Your task to perform on an android device: Set the phone to "Do not disturb". Image 0: 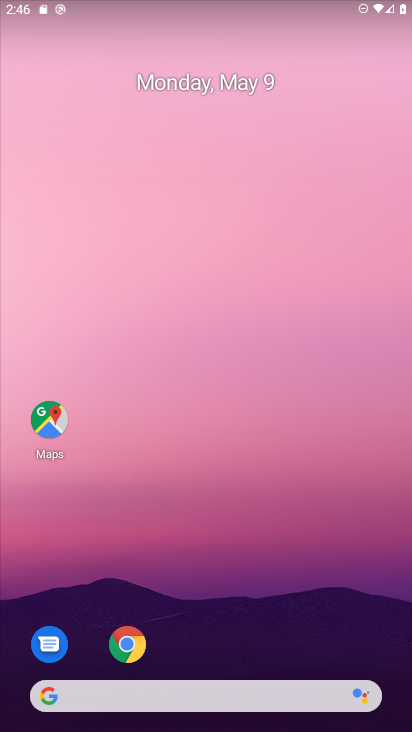
Step 0: drag from (196, 465) to (196, 154)
Your task to perform on an android device: Set the phone to "Do not disturb". Image 1: 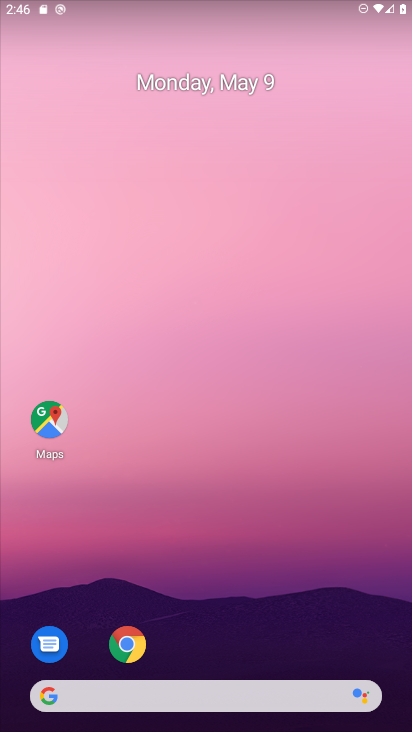
Step 1: drag from (257, 607) to (270, 271)
Your task to perform on an android device: Set the phone to "Do not disturb". Image 2: 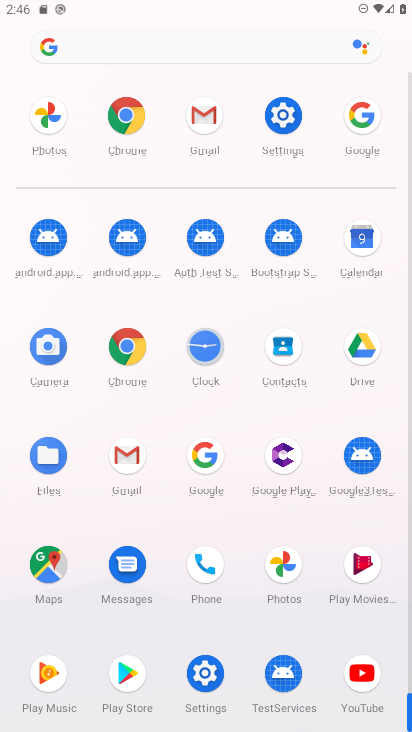
Step 2: click (281, 132)
Your task to perform on an android device: Set the phone to "Do not disturb". Image 3: 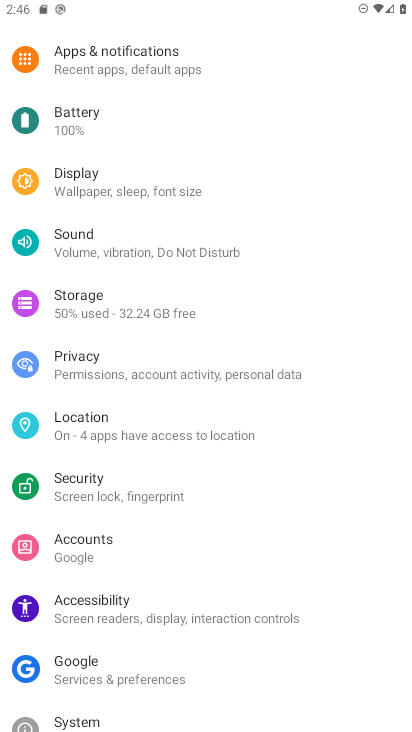
Step 3: drag from (215, 234) to (195, 390)
Your task to perform on an android device: Set the phone to "Do not disturb". Image 4: 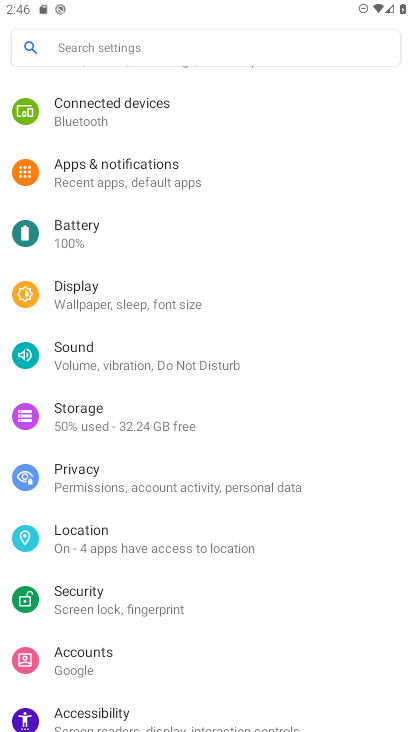
Step 4: click (134, 369)
Your task to perform on an android device: Set the phone to "Do not disturb". Image 5: 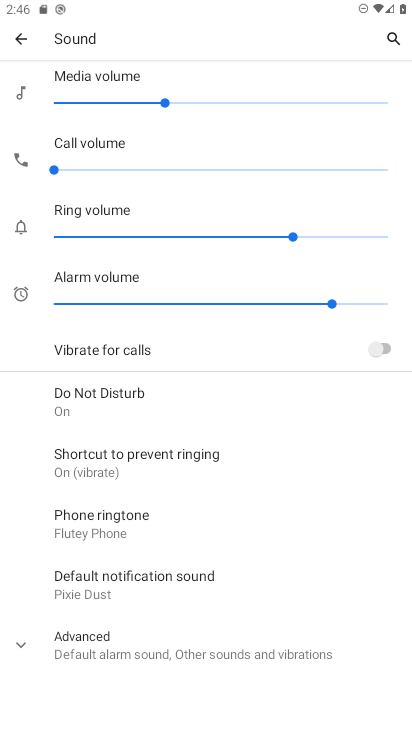
Step 5: drag from (174, 517) to (235, 348)
Your task to perform on an android device: Set the phone to "Do not disturb". Image 6: 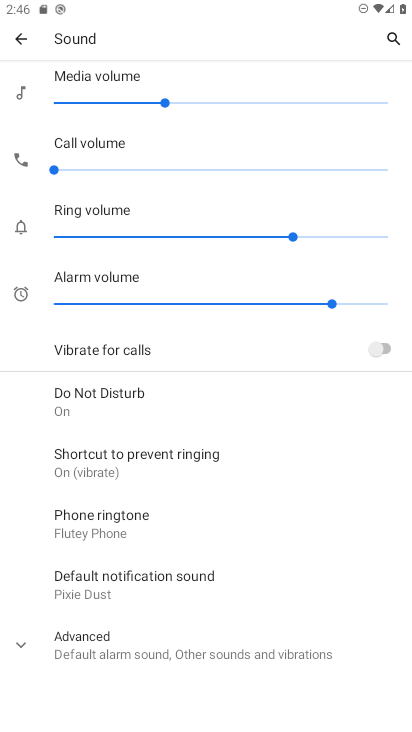
Step 6: click (101, 395)
Your task to perform on an android device: Set the phone to "Do not disturb". Image 7: 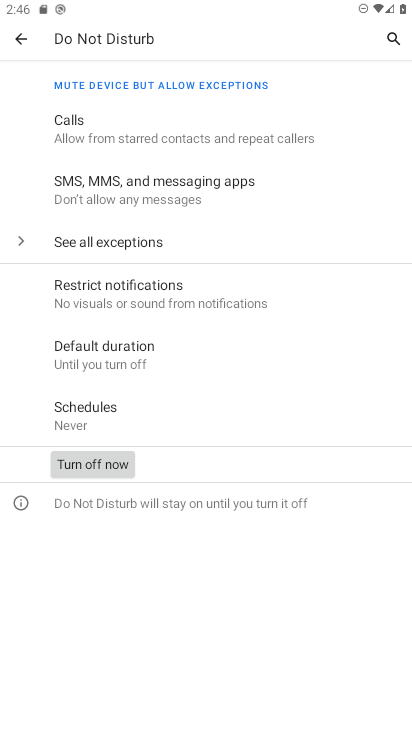
Step 7: task complete